Your task to perform on an android device: Go to display settings Image 0: 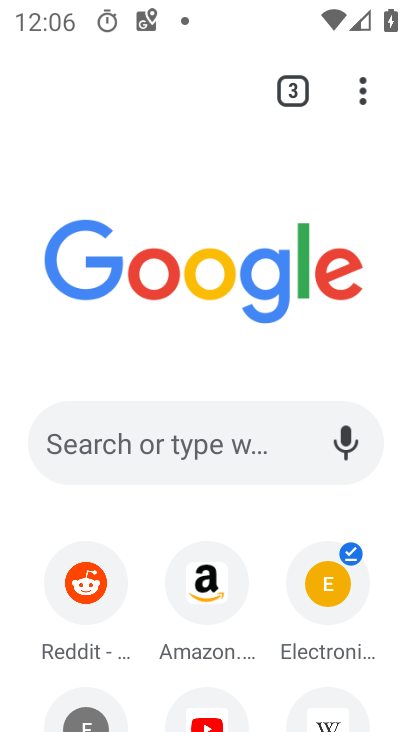
Step 0: click (363, 92)
Your task to perform on an android device: Go to display settings Image 1: 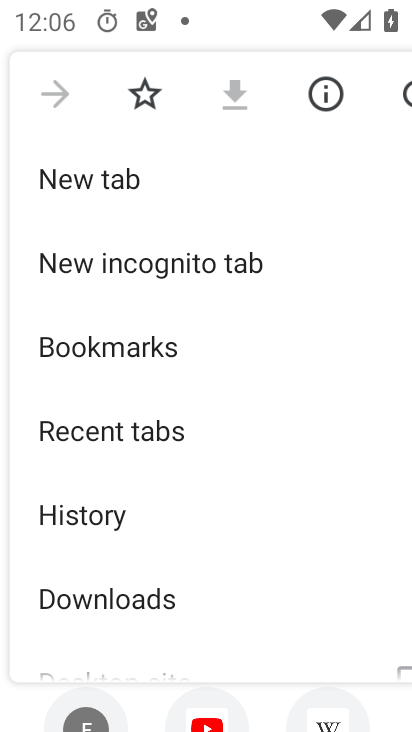
Step 1: press home button
Your task to perform on an android device: Go to display settings Image 2: 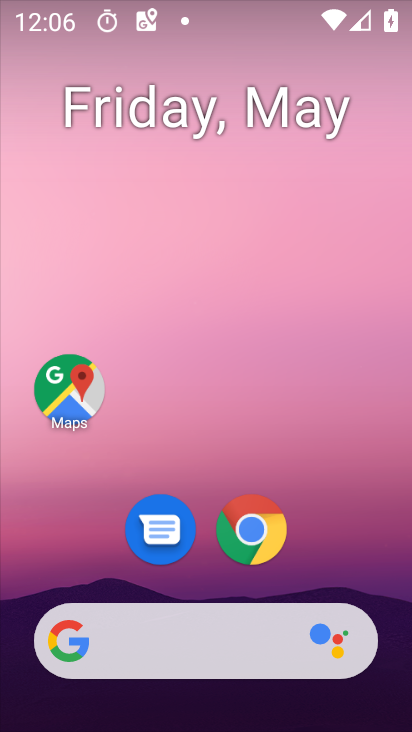
Step 2: drag from (261, 584) to (292, 109)
Your task to perform on an android device: Go to display settings Image 3: 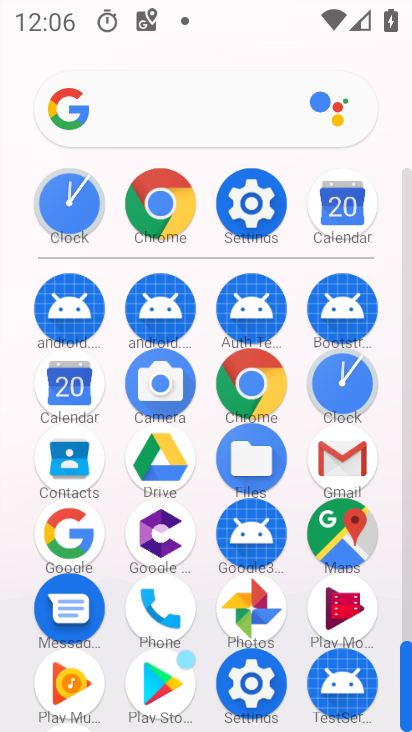
Step 3: click (259, 218)
Your task to perform on an android device: Go to display settings Image 4: 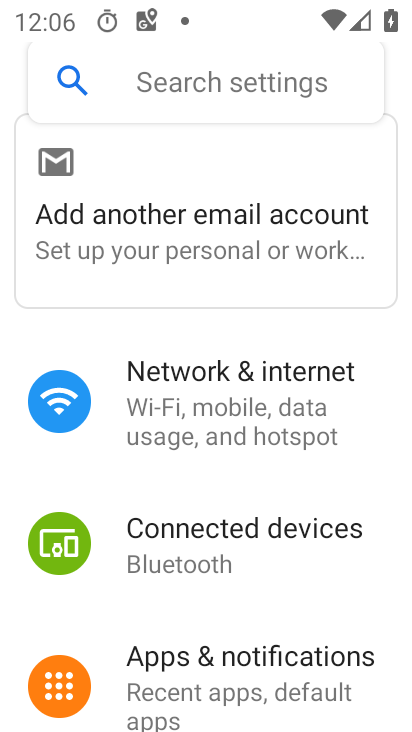
Step 4: drag from (258, 565) to (272, 242)
Your task to perform on an android device: Go to display settings Image 5: 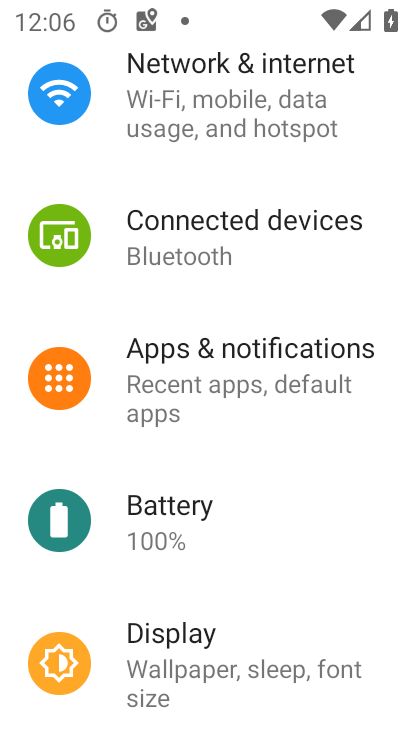
Step 5: click (220, 670)
Your task to perform on an android device: Go to display settings Image 6: 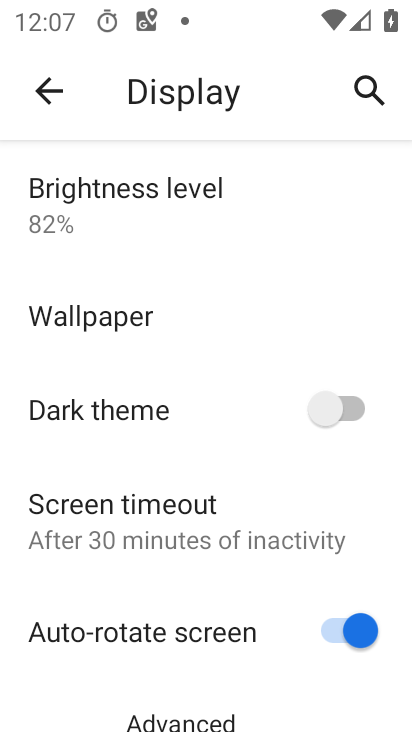
Step 6: task complete